Your task to perform on an android device: Open display settings Image 0: 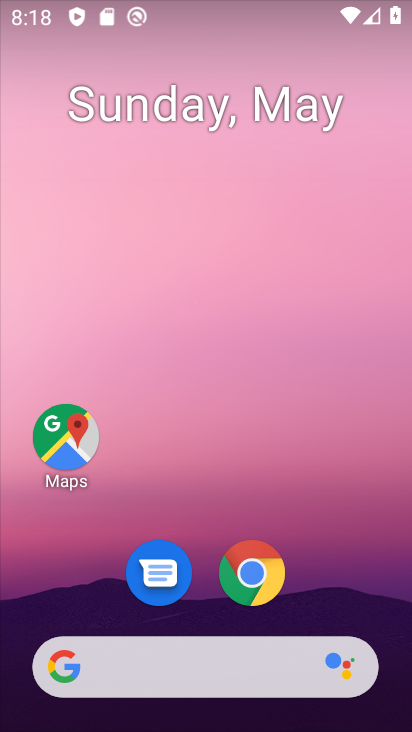
Step 0: drag from (384, 593) to (256, 40)
Your task to perform on an android device: Open display settings Image 1: 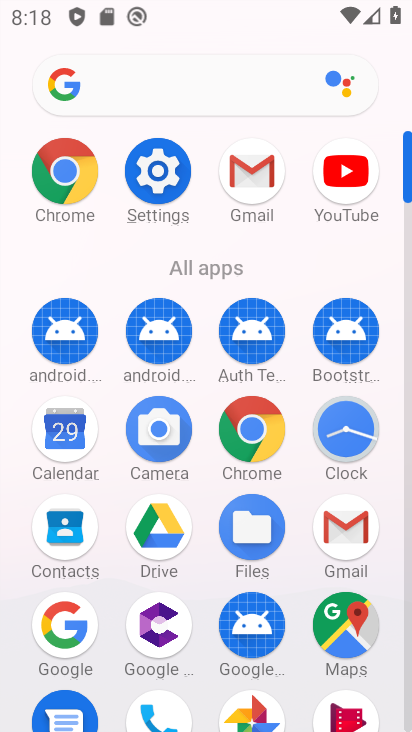
Step 1: click (167, 157)
Your task to perform on an android device: Open display settings Image 2: 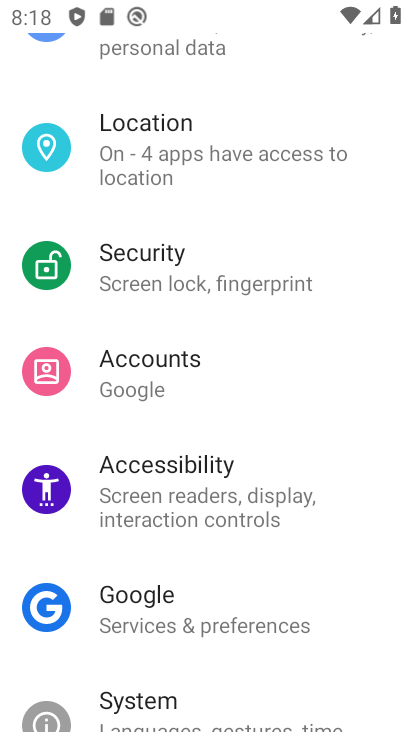
Step 2: drag from (245, 231) to (198, 674)
Your task to perform on an android device: Open display settings Image 3: 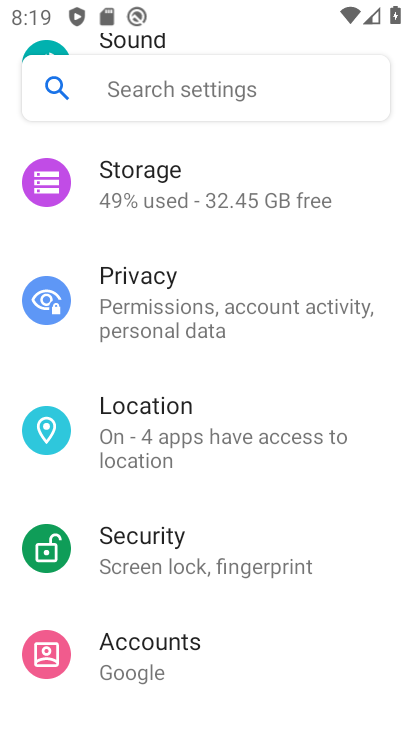
Step 3: drag from (180, 150) to (165, 570)
Your task to perform on an android device: Open display settings Image 4: 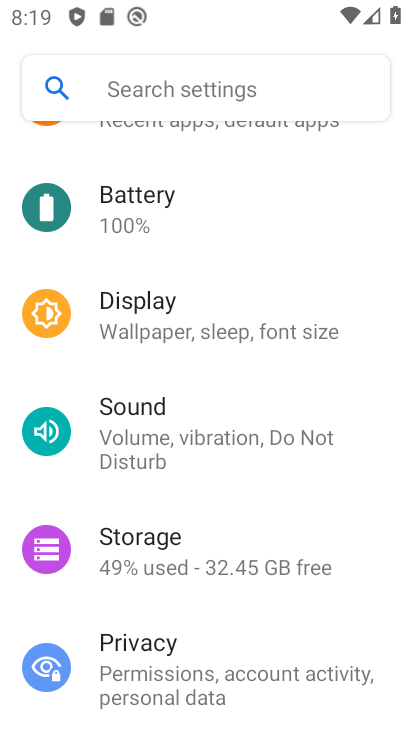
Step 4: click (208, 330)
Your task to perform on an android device: Open display settings Image 5: 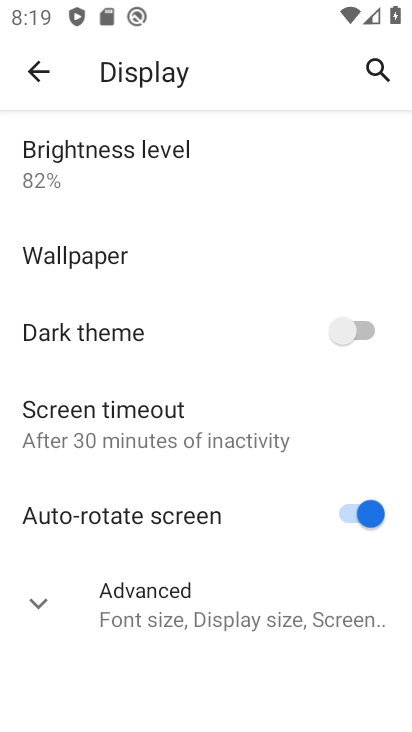
Step 5: task complete